Your task to perform on an android device: check android version Image 0: 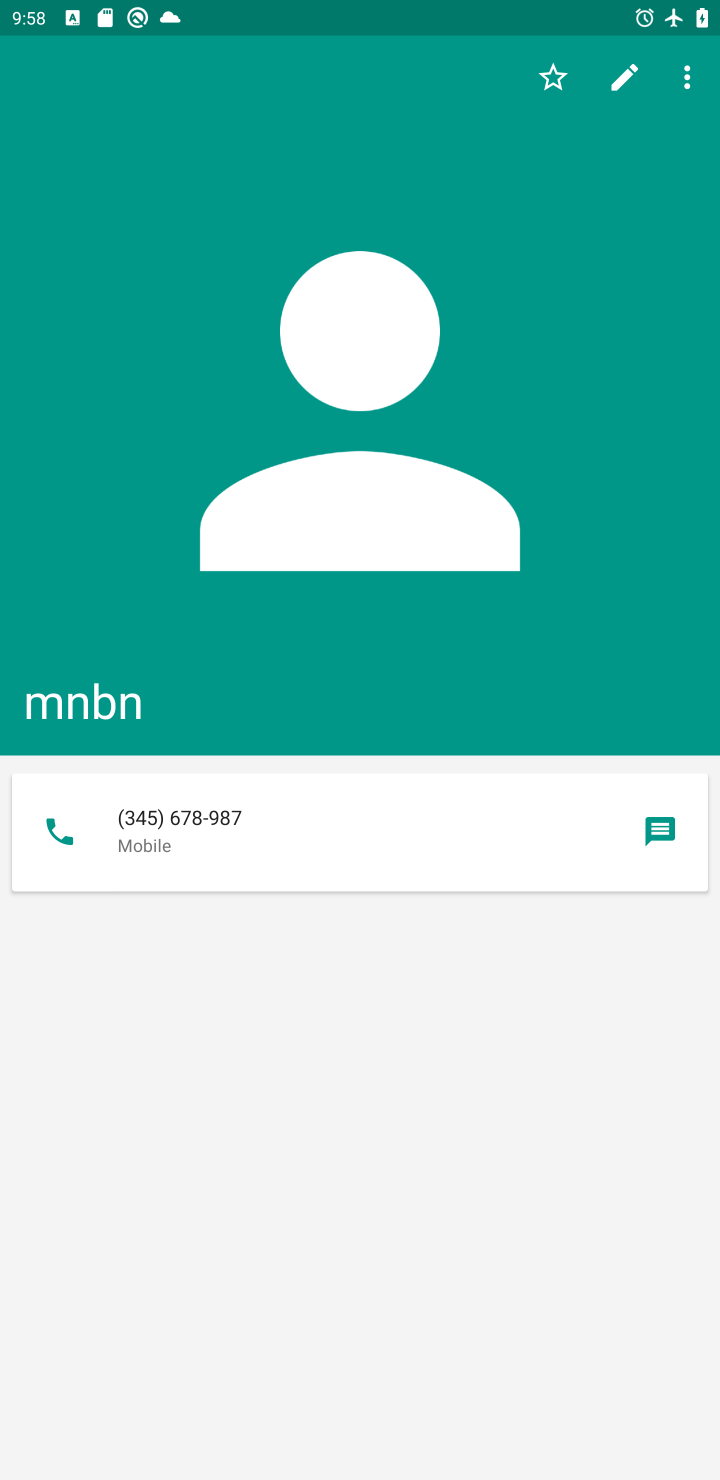
Step 0: press home button
Your task to perform on an android device: check android version Image 1: 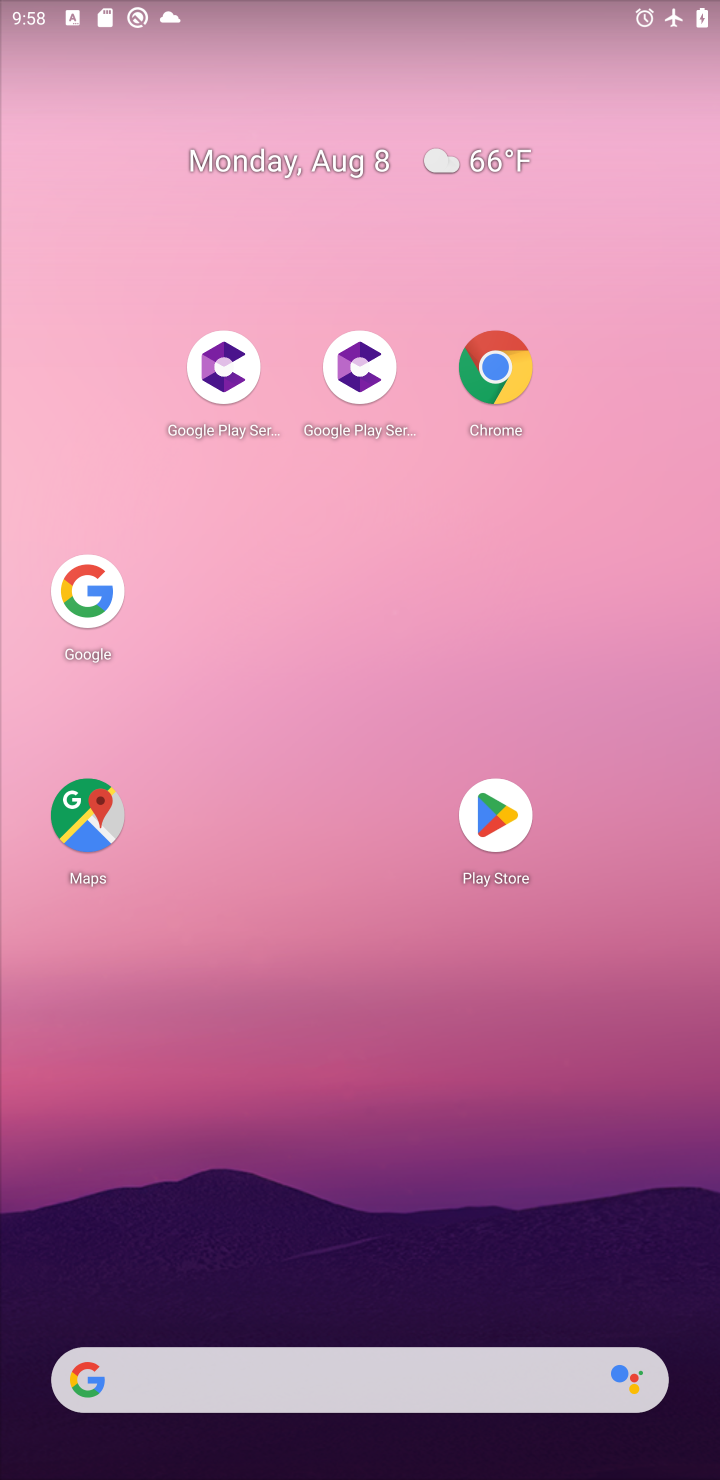
Step 1: drag from (299, 1182) to (225, 346)
Your task to perform on an android device: check android version Image 2: 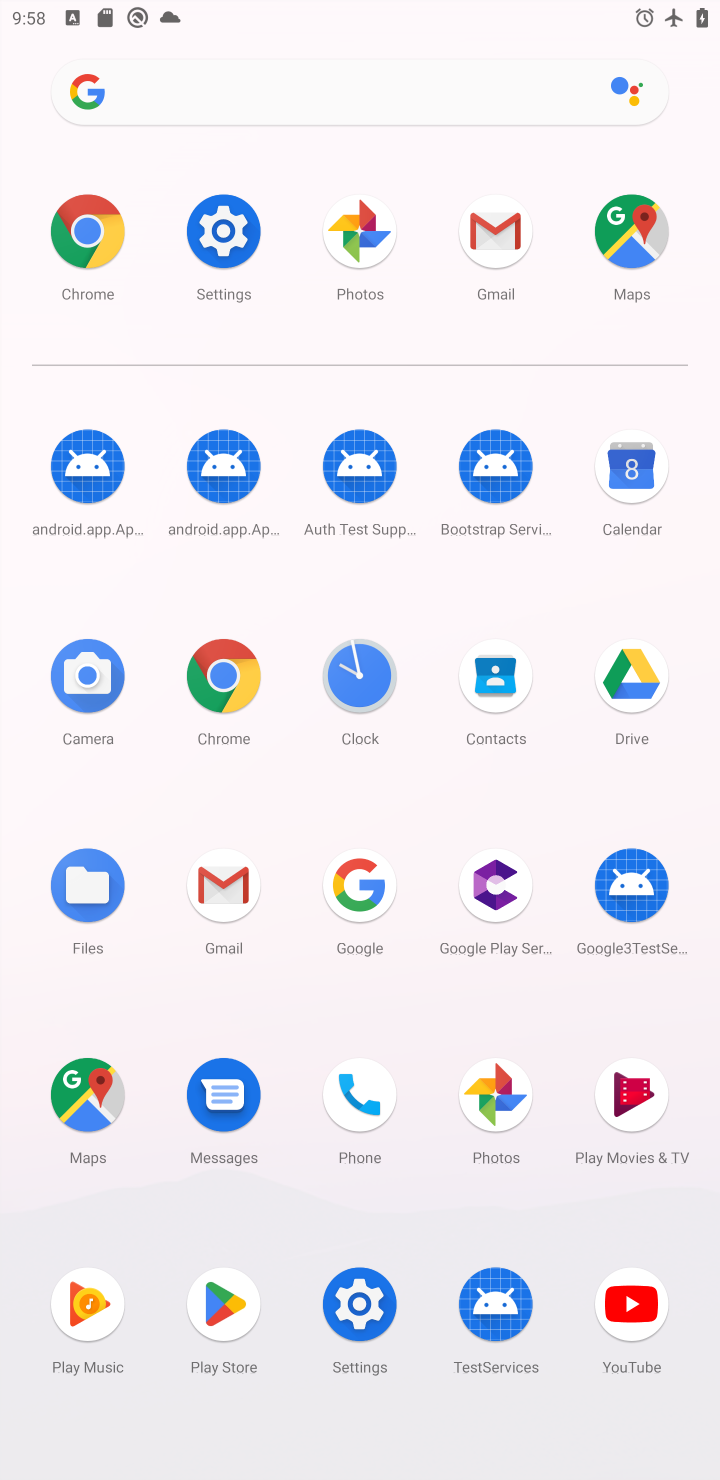
Step 2: click (211, 261)
Your task to perform on an android device: check android version Image 3: 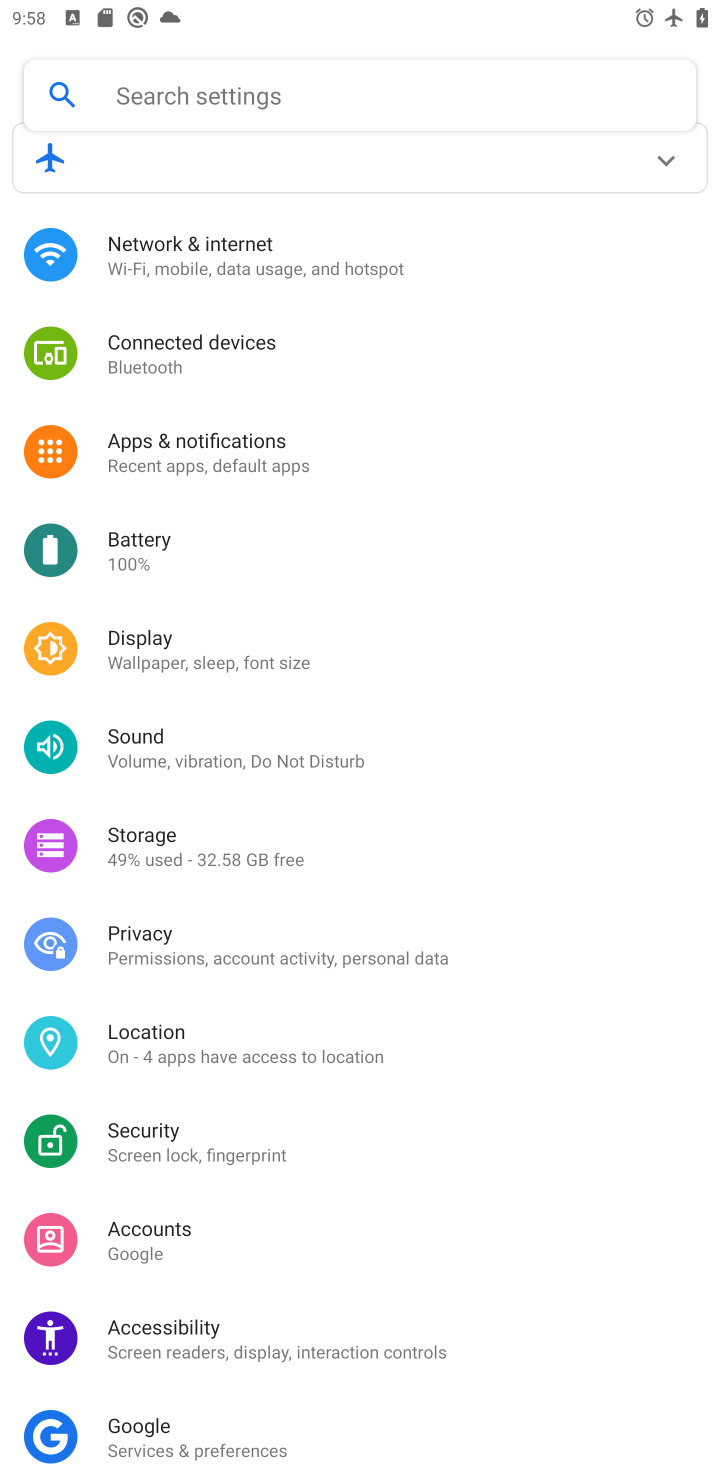
Step 3: drag from (504, 774) to (547, 271)
Your task to perform on an android device: check android version Image 4: 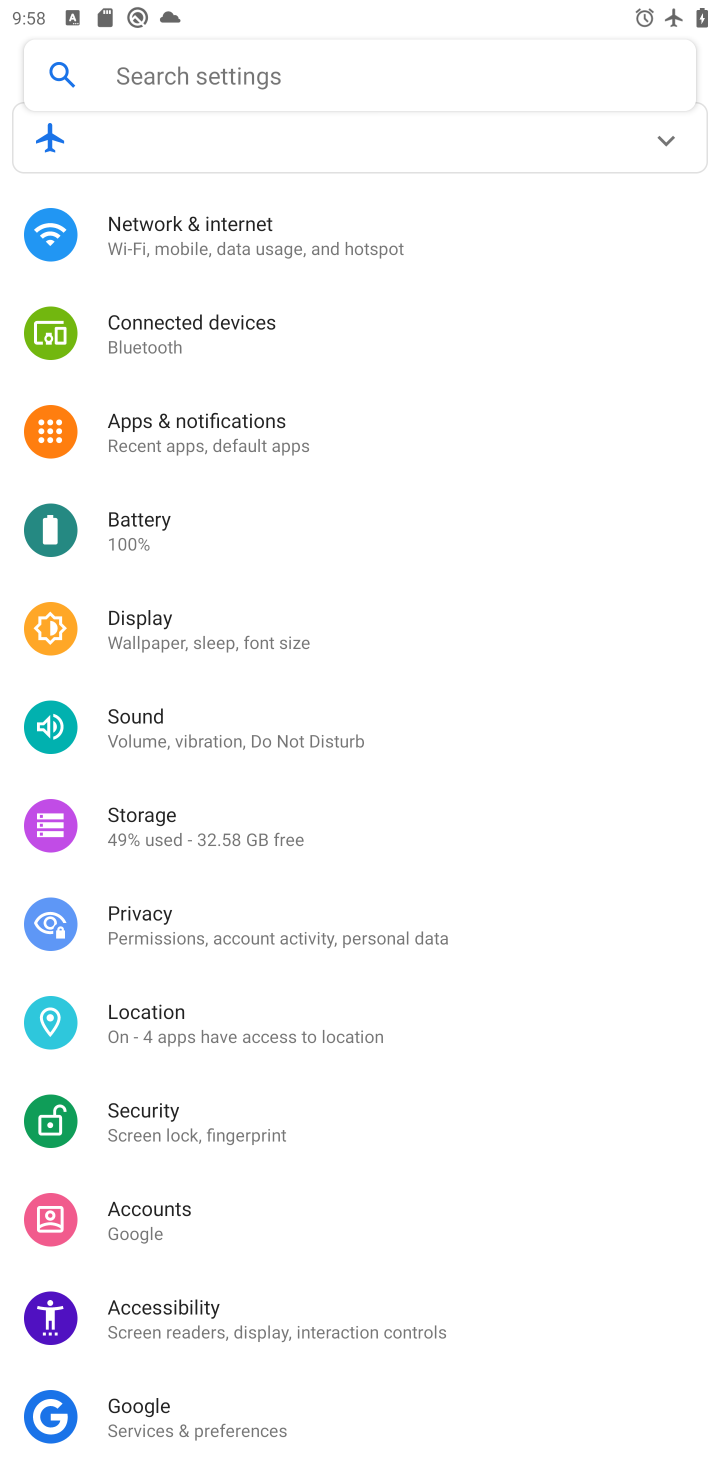
Step 4: drag from (291, 1412) to (375, 612)
Your task to perform on an android device: check android version Image 5: 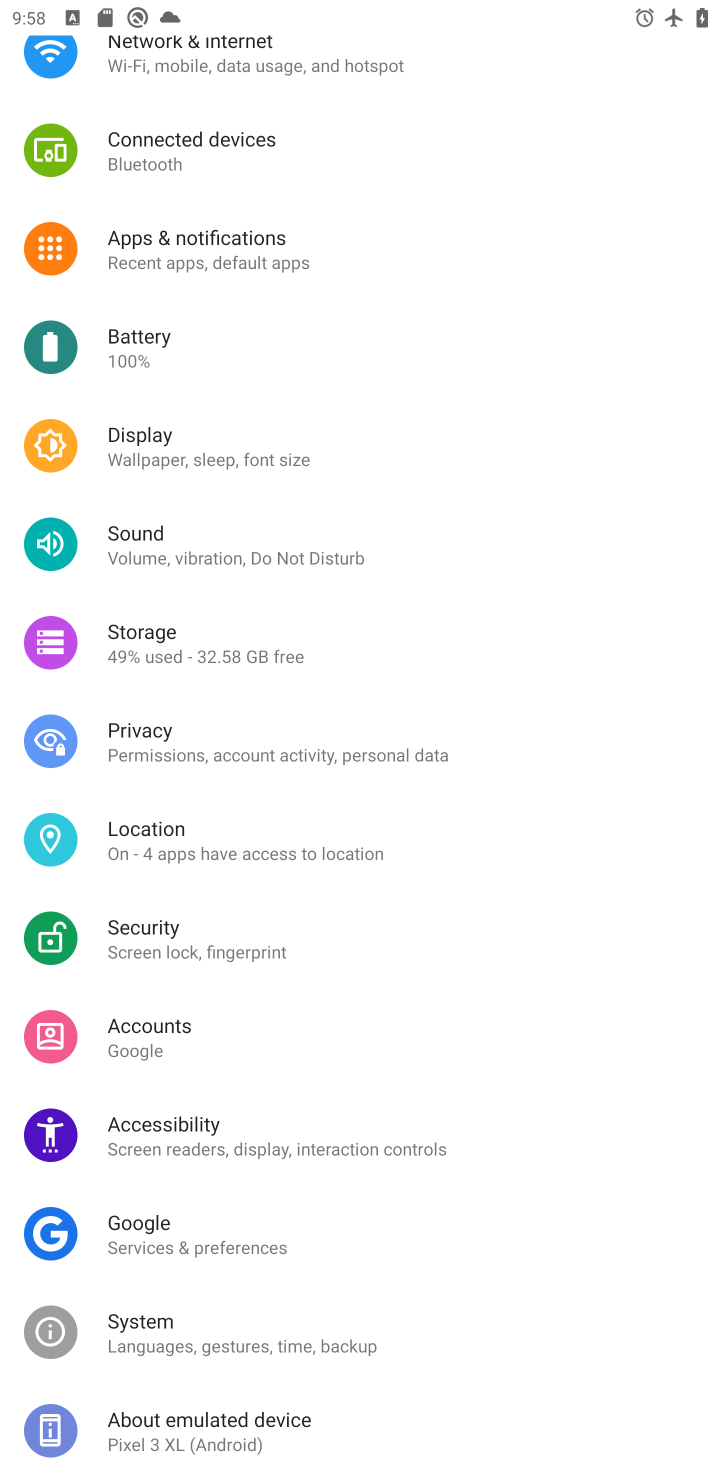
Step 5: click (277, 1434)
Your task to perform on an android device: check android version Image 6: 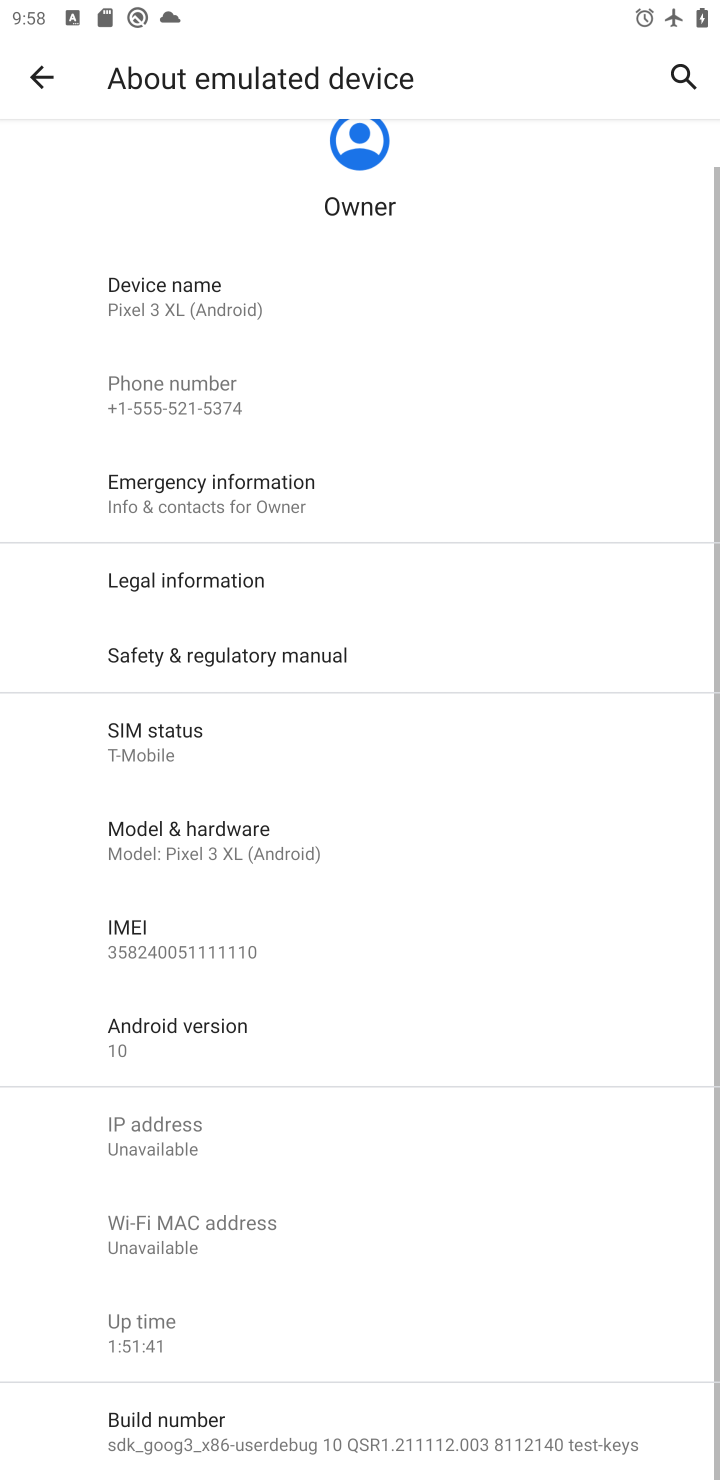
Step 6: click (178, 1018)
Your task to perform on an android device: check android version Image 7: 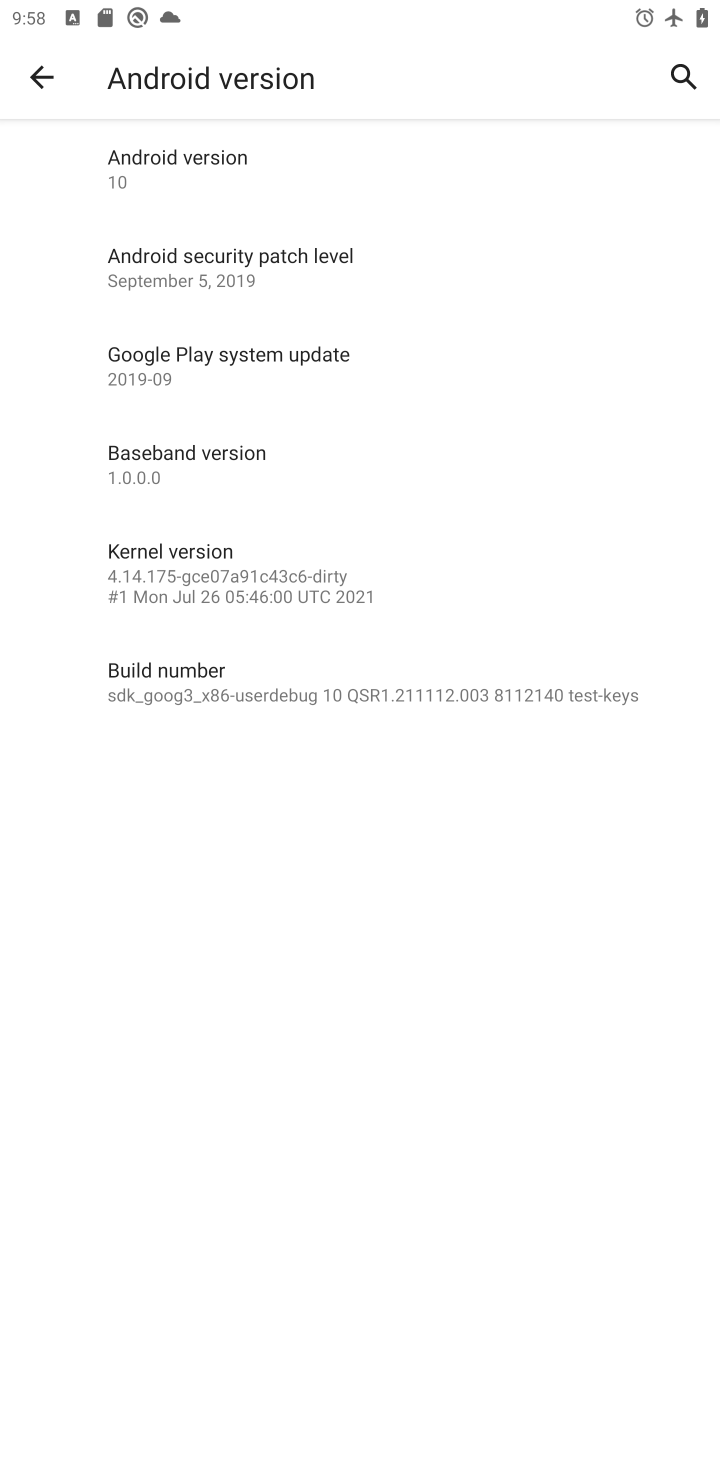
Step 7: click (338, 137)
Your task to perform on an android device: check android version Image 8: 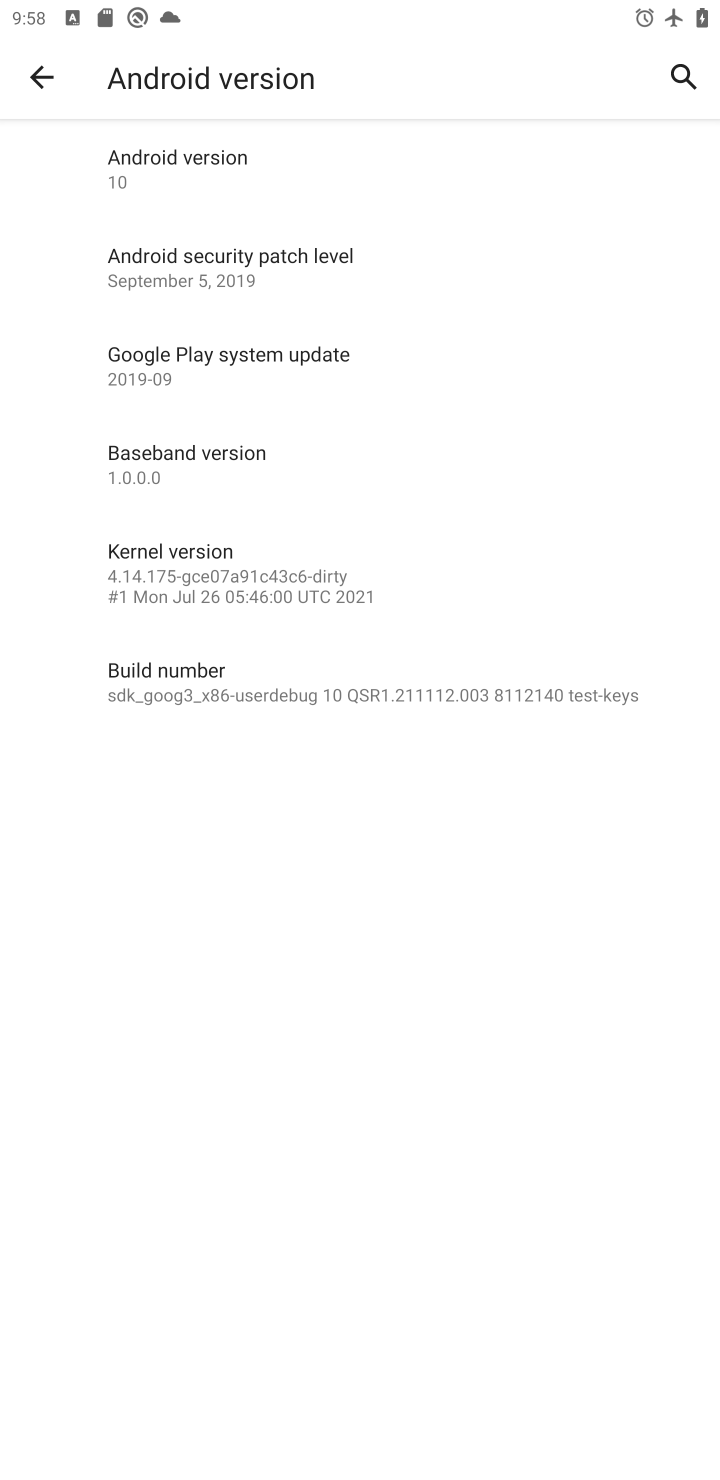
Step 8: task complete